Your task to perform on an android device: Open notification settings Image 0: 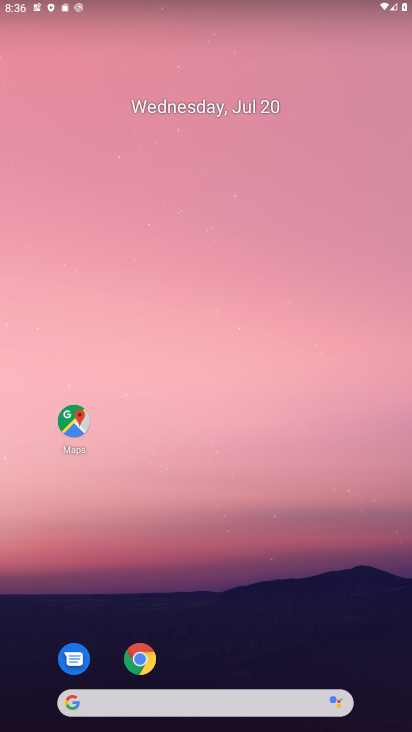
Step 0: drag from (281, 640) to (293, 3)
Your task to perform on an android device: Open notification settings Image 1: 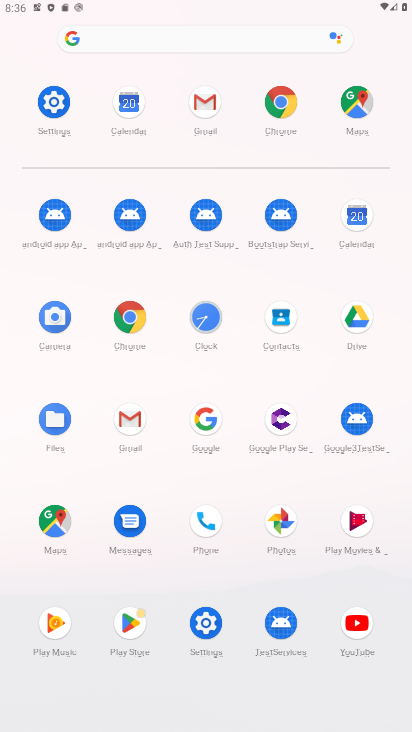
Step 1: click (211, 614)
Your task to perform on an android device: Open notification settings Image 2: 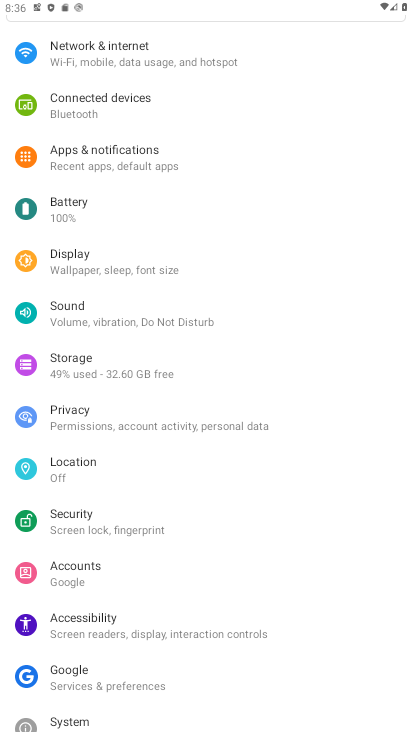
Step 2: click (127, 156)
Your task to perform on an android device: Open notification settings Image 3: 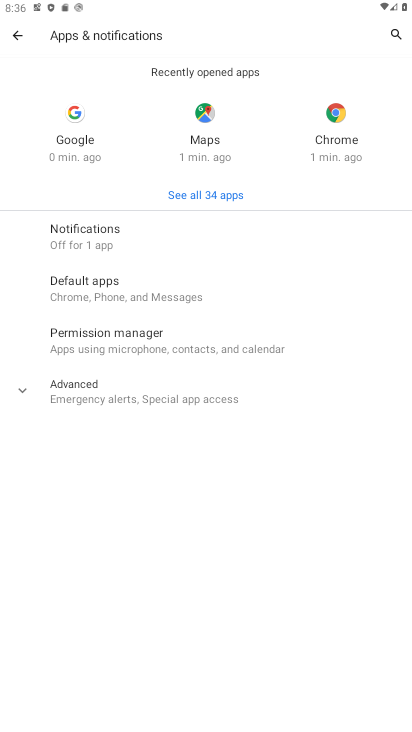
Step 3: click (60, 242)
Your task to perform on an android device: Open notification settings Image 4: 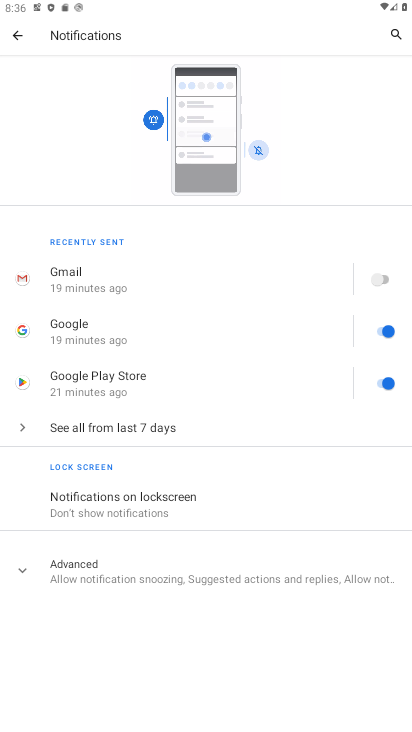
Step 4: task complete